Your task to perform on an android device: clear all cookies in the chrome app Image 0: 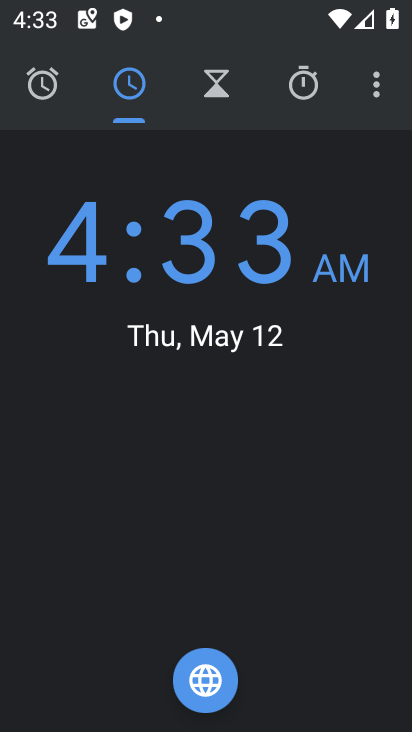
Step 0: press home button
Your task to perform on an android device: clear all cookies in the chrome app Image 1: 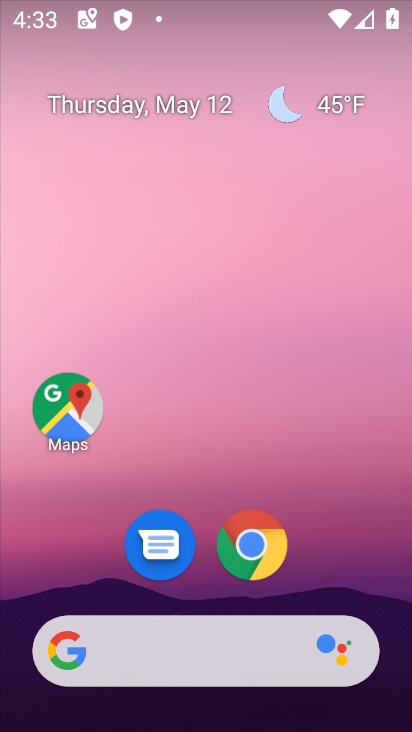
Step 1: click (250, 546)
Your task to perform on an android device: clear all cookies in the chrome app Image 2: 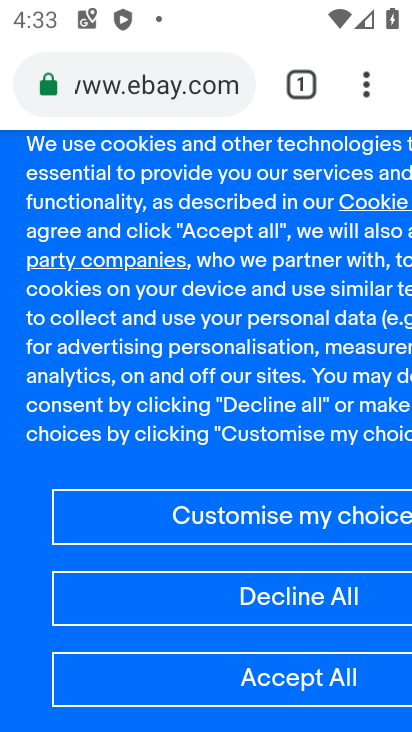
Step 2: click (366, 82)
Your task to perform on an android device: clear all cookies in the chrome app Image 3: 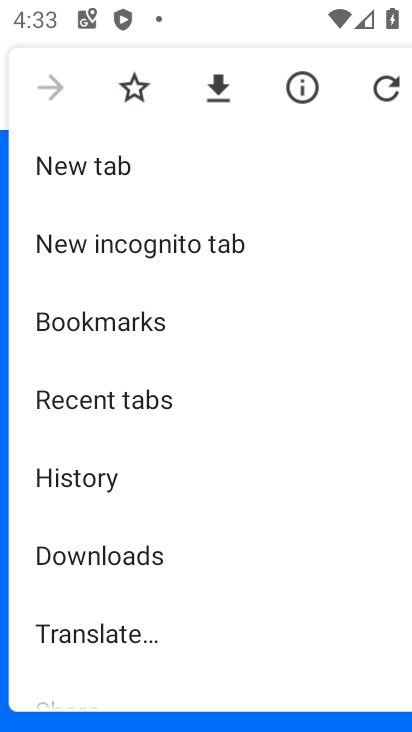
Step 3: drag from (255, 563) to (221, 80)
Your task to perform on an android device: clear all cookies in the chrome app Image 4: 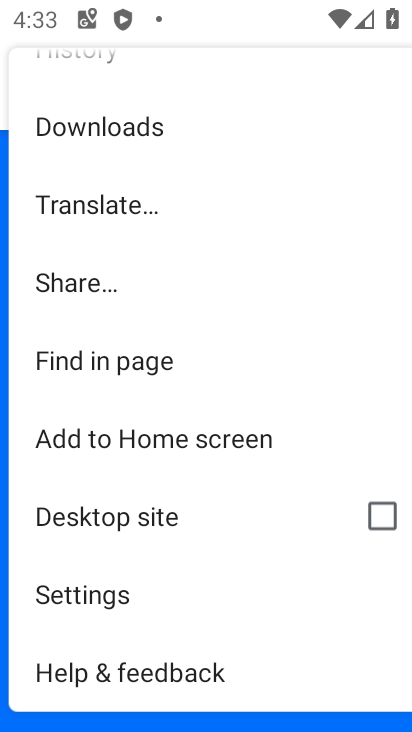
Step 4: drag from (169, 558) to (202, 264)
Your task to perform on an android device: clear all cookies in the chrome app Image 5: 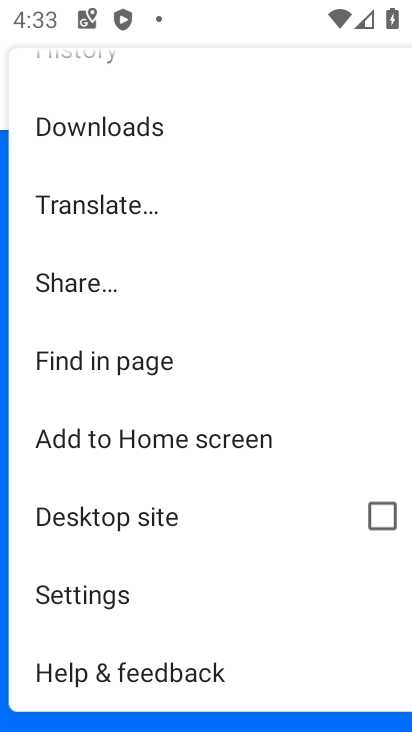
Step 5: drag from (127, 217) to (166, 529)
Your task to perform on an android device: clear all cookies in the chrome app Image 6: 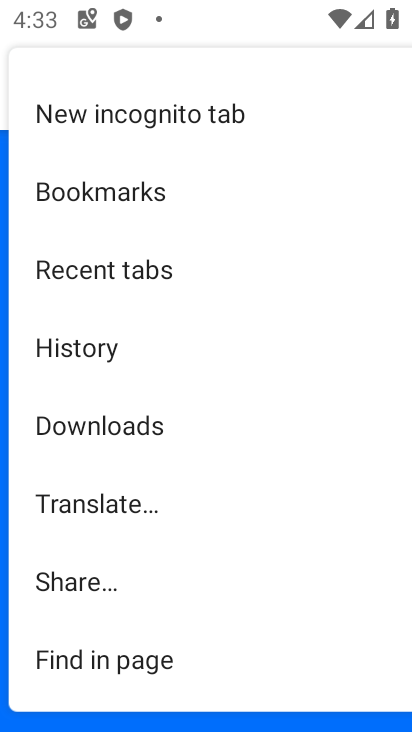
Step 6: drag from (216, 323) to (252, 531)
Your task to perform on an android device: clear all cookies in the chrome app Image 7: 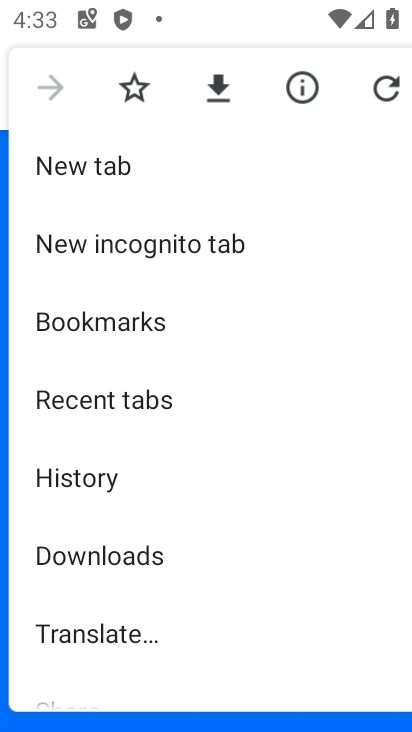
Step 7: drag from (194, 547) to (234, 327)
Your task to perform on an android device: clear all cookies in the chrome app Image 8: 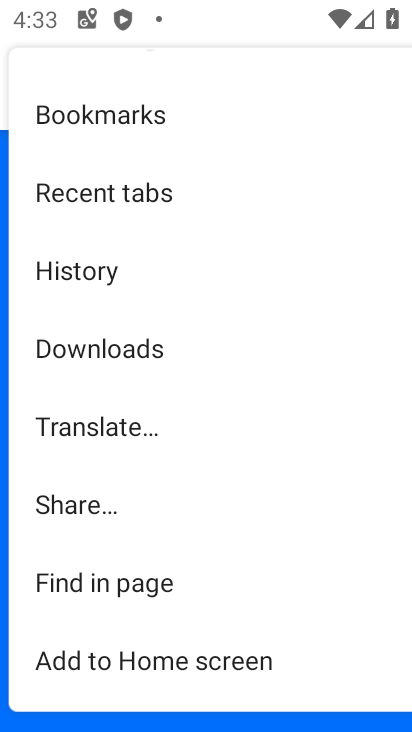
Step 8: click (75, 279)
Your task to perform on an android device: clear all cookies in the chrome app Image 9: 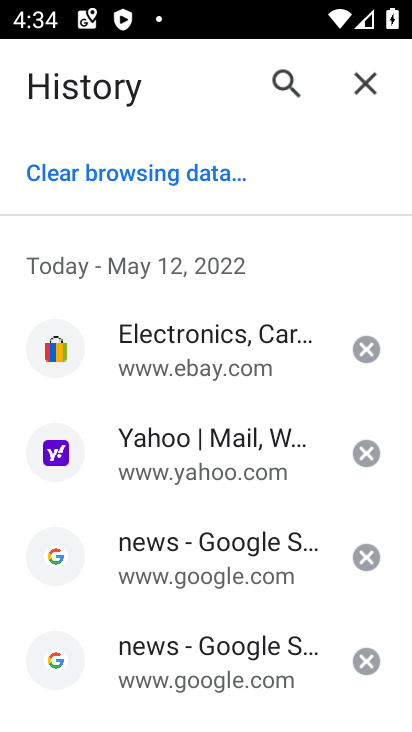
Step 9: click (191, 165)
Your task to perform on an android device: clear all cookies in the chrome app Image 10: 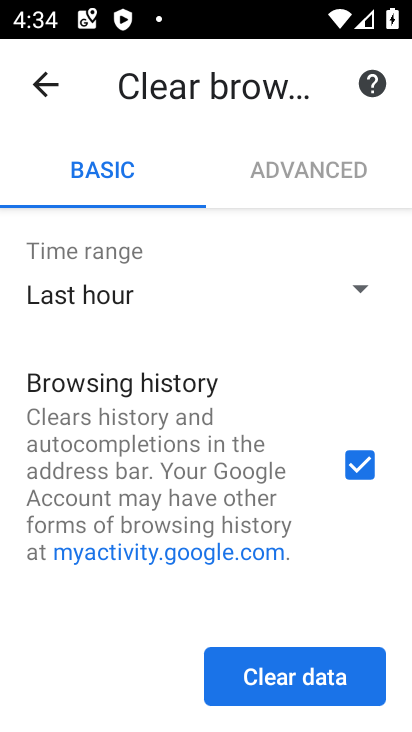
Step 10: click (316, 298)
Your task to perform on an android device: clear all cookies in the chrome app Image 11: 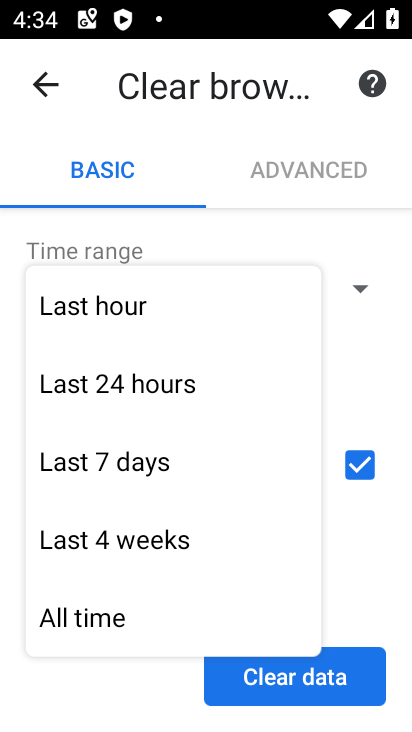
Step 11: click (82, 624)
Your task to perform on an android device: clear all cookies in the chrome app Image 12: 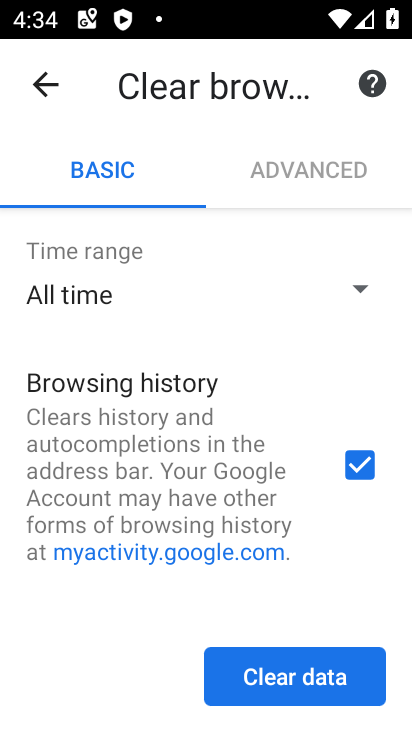
Step 12: drag from (212, 535) to (259, 184)
Your task to perform on an android device: clear all cookies in the chrome app Image 13: 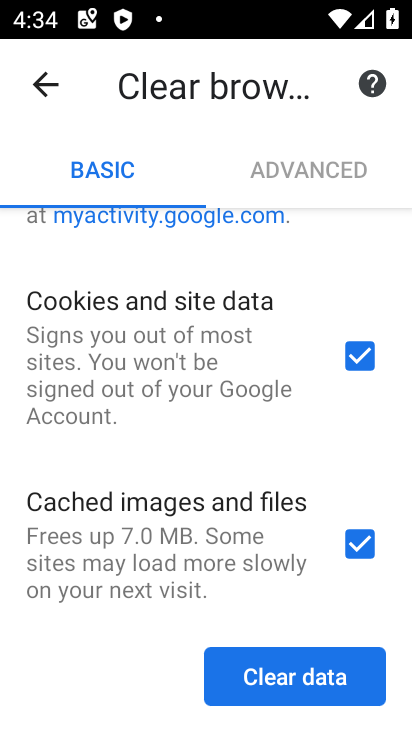
Step 13: click (315, 664)
Your task to perform on an android device: clear all cookies in the chrome app Image 14: 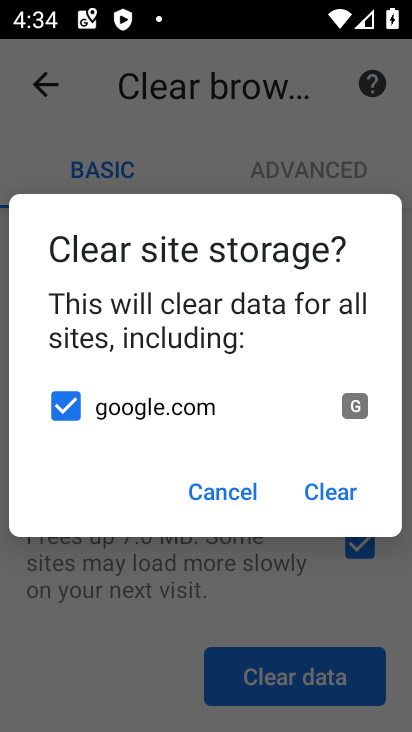
Step 14: click (335, 505)
Your task to perform on an android device: clear all cookies in the chrome app Image 15: 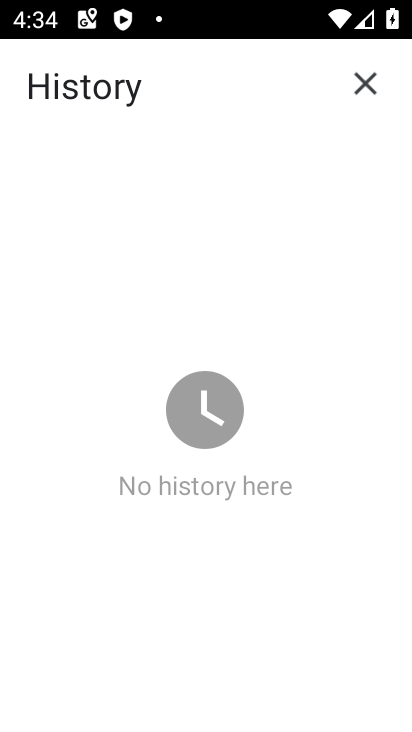
Step 15: task complete